Your task to perform on an android device: install app "DuckDuckGo Privacy Browser" Image 0: 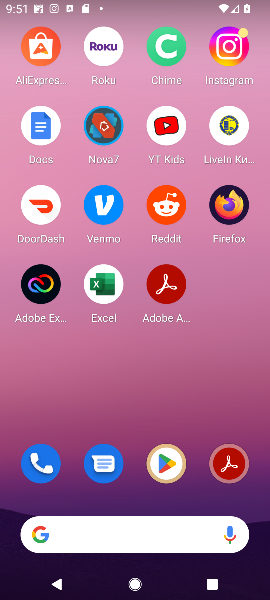
Step 0: click (167, 466)
Your task to perform on an android device: install app "DuckDuckGo Privacy Browser" Image 1: 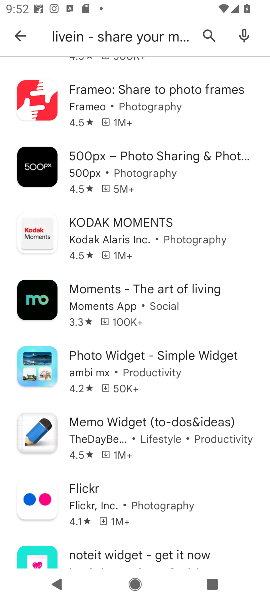
Step 1: click (20, 37)
Your task to perform on an android device: install app "DuckDuckGo Privacy Browser" Image 2: 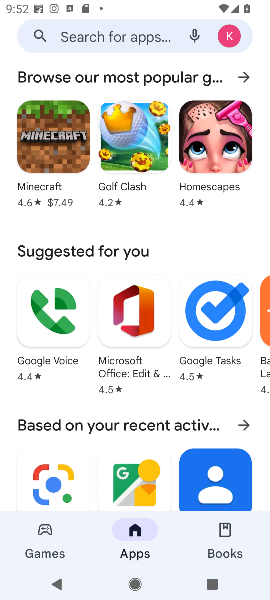
Step 2: click (121, 29)
Your task to perform on an android device: install app "DuckDuckGo Privacy Browser" Image 3: 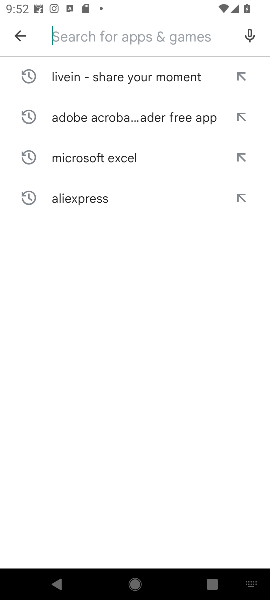
Step 3: type "DuckDuckGo Privacy Browser"
Your task to perform on an android device: install app "DuckDuckGo Privacy Browser" Image 4: 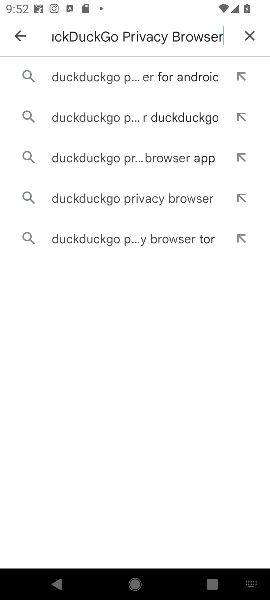
Step 4: click (133, 69)
Your task to perform on an android device: install app "DuckDuckGo Privacy Browser" Image 5: 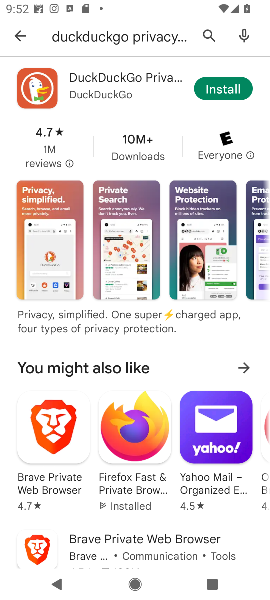
Step 5: click (209, 86)
Your task to perform on an android device: install app "DuckDuckGo Privacy Browser" Image 6: 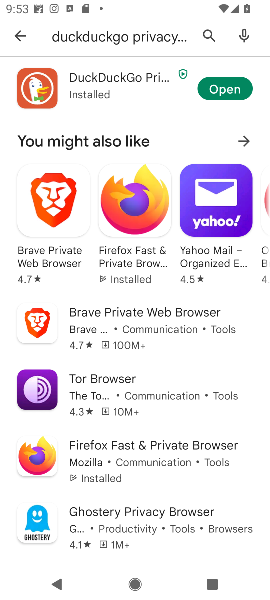
Step 6: click (209, 86)
Your task to perform on an android device: install app "DuckDuckGo Privacy Browser" Image 7: 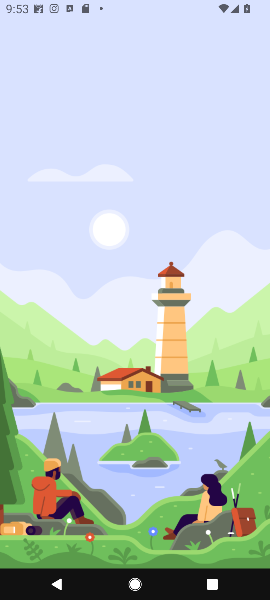
Step 7: task complete